Your task to perform on an android device: Open the Play Movies app and select the watchlist tab. Image 0: 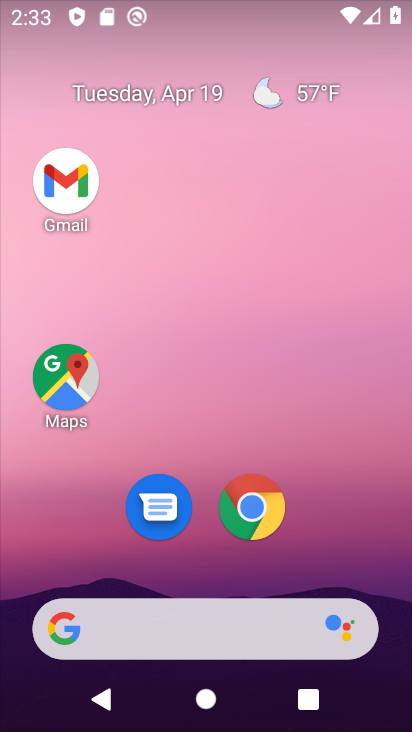
Step 0: drag from (176, 568) to (234, 124)
Your task to perform on an android device: Open the Play Movies app and select the watchlist tab. Image 1: 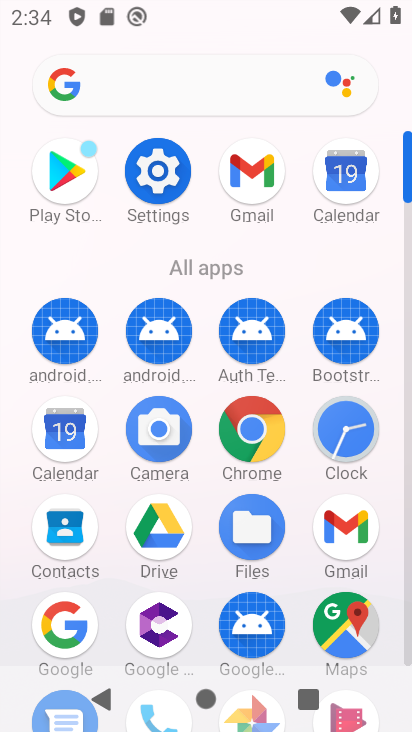
Step 1: drag from (253, 623) to (249, 221)
Your task to perform on an android device: Open the Play Movies app and select the watchlist tab. Image 2: 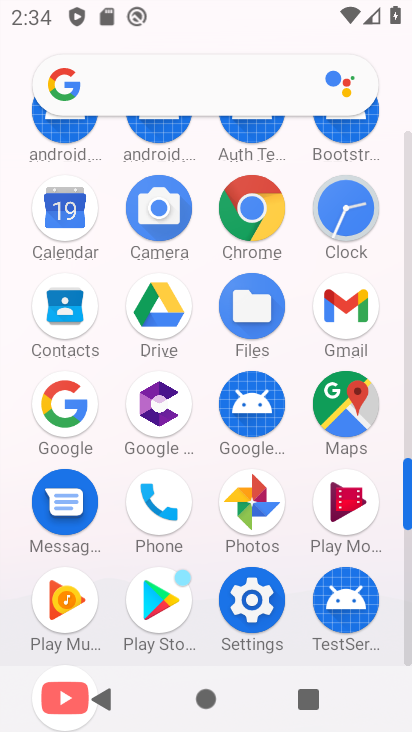
Step 2: click (347, 500)
Your task to perform on an android device: Open the Play Movies app and select the watchlist tab. Image 3: 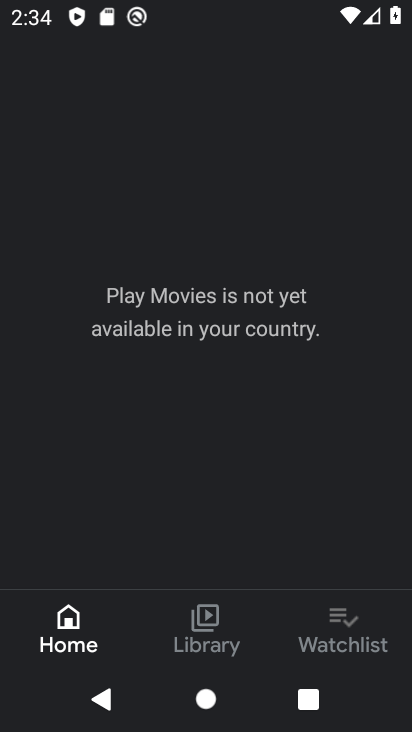
Step 3: click (349, 650)
Your task to perform on an android device: Open the Play Movies app and select the watchlist tab. Image 4: 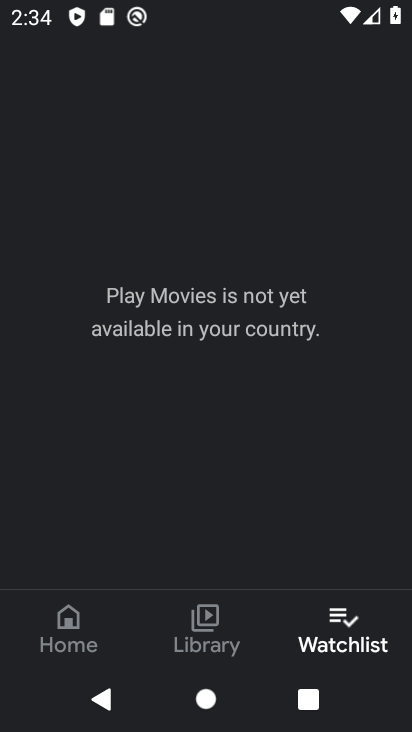
Step 4: task complete